Your task to perform on an android device: Clear the cart on bestbuy. Search for "jbl flip 4" on bestbuy, select the first entry, and add it to the cart. Image 0: 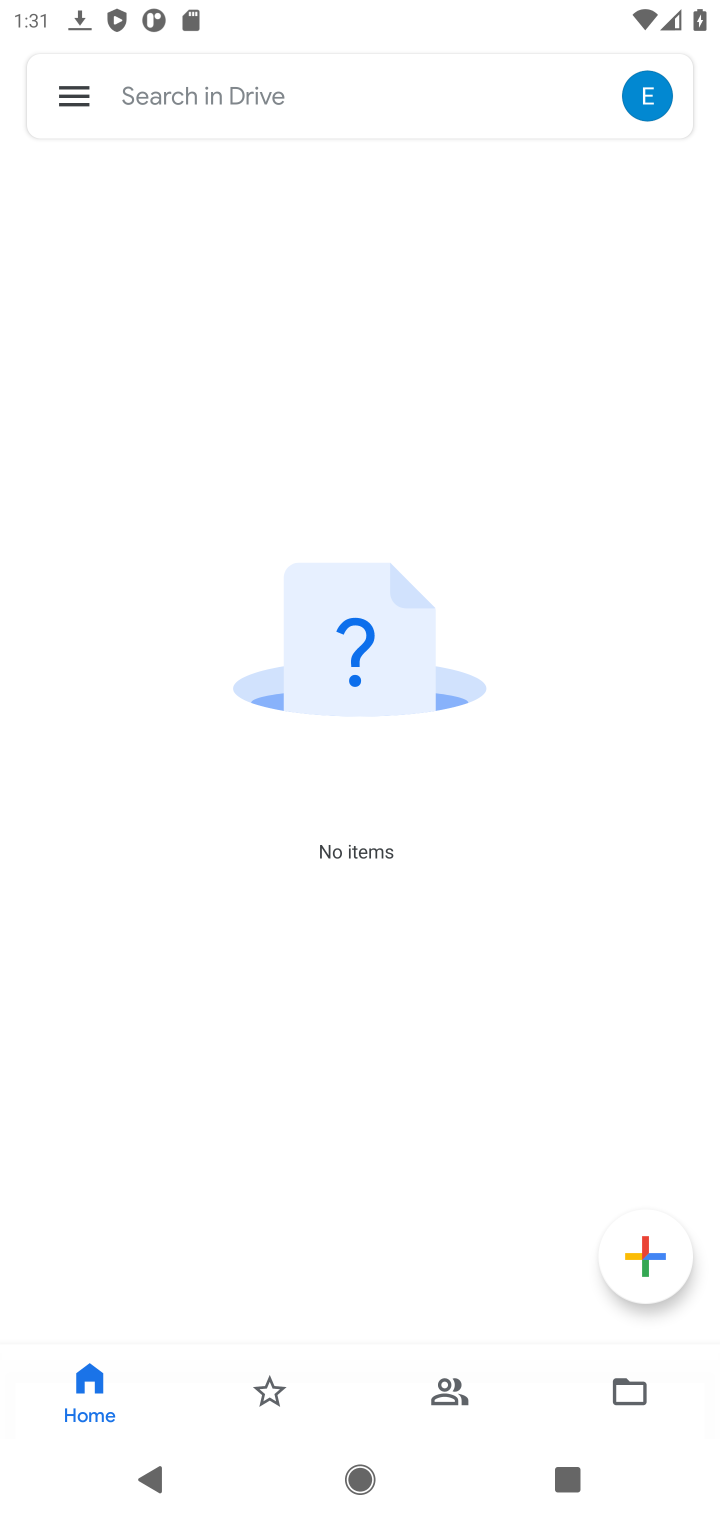
Step 0: press home button
Your task to perform on an android device: Clear the cart on bestbuy. Search for "jbl flip 4" on bestbuy, select the first entry, and add it to the cart. Image 1: 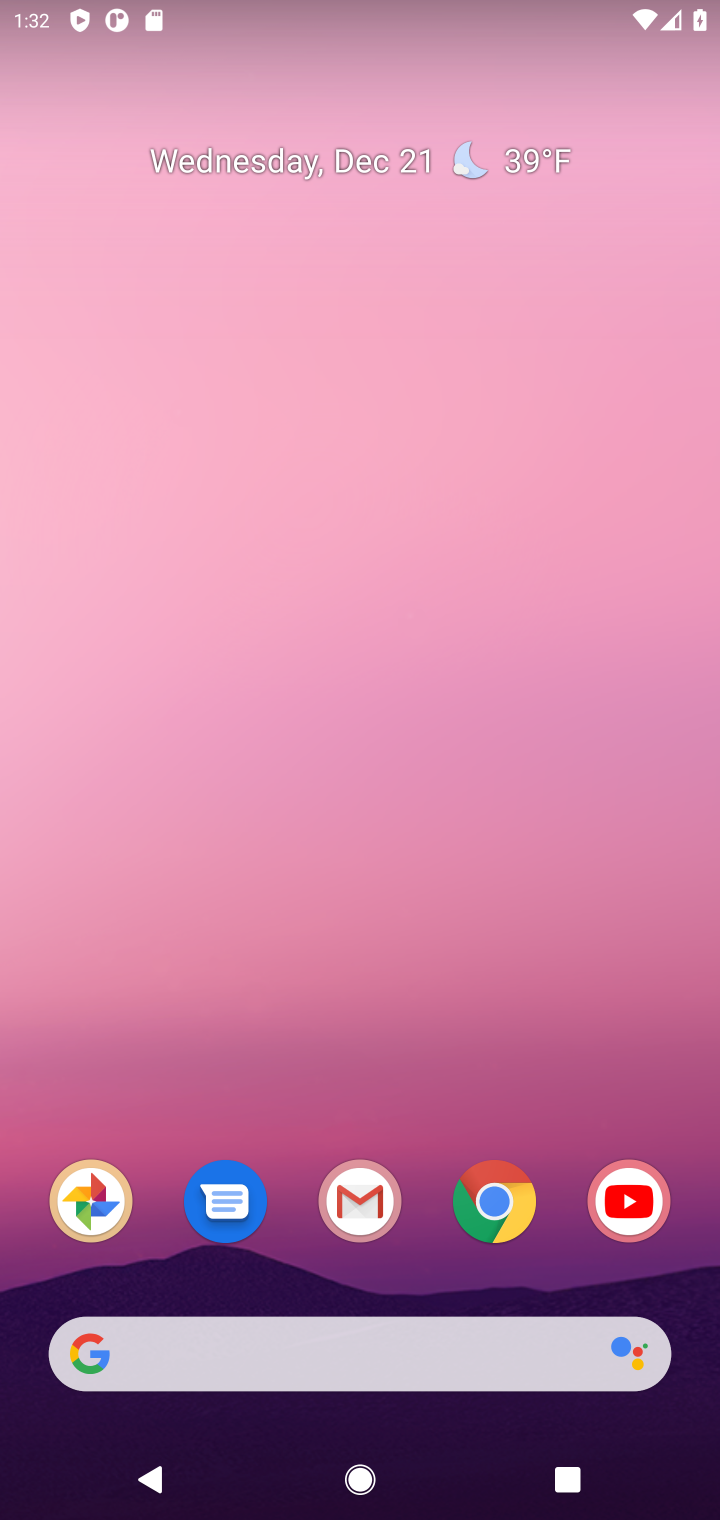
Step 1: click (502, 1209)
Your task to perform on an android device: Clear the cart on bestbuy. Search for "jbl flip 4" on bestbuy, select the first entry, and add it to the cart. Image 2: 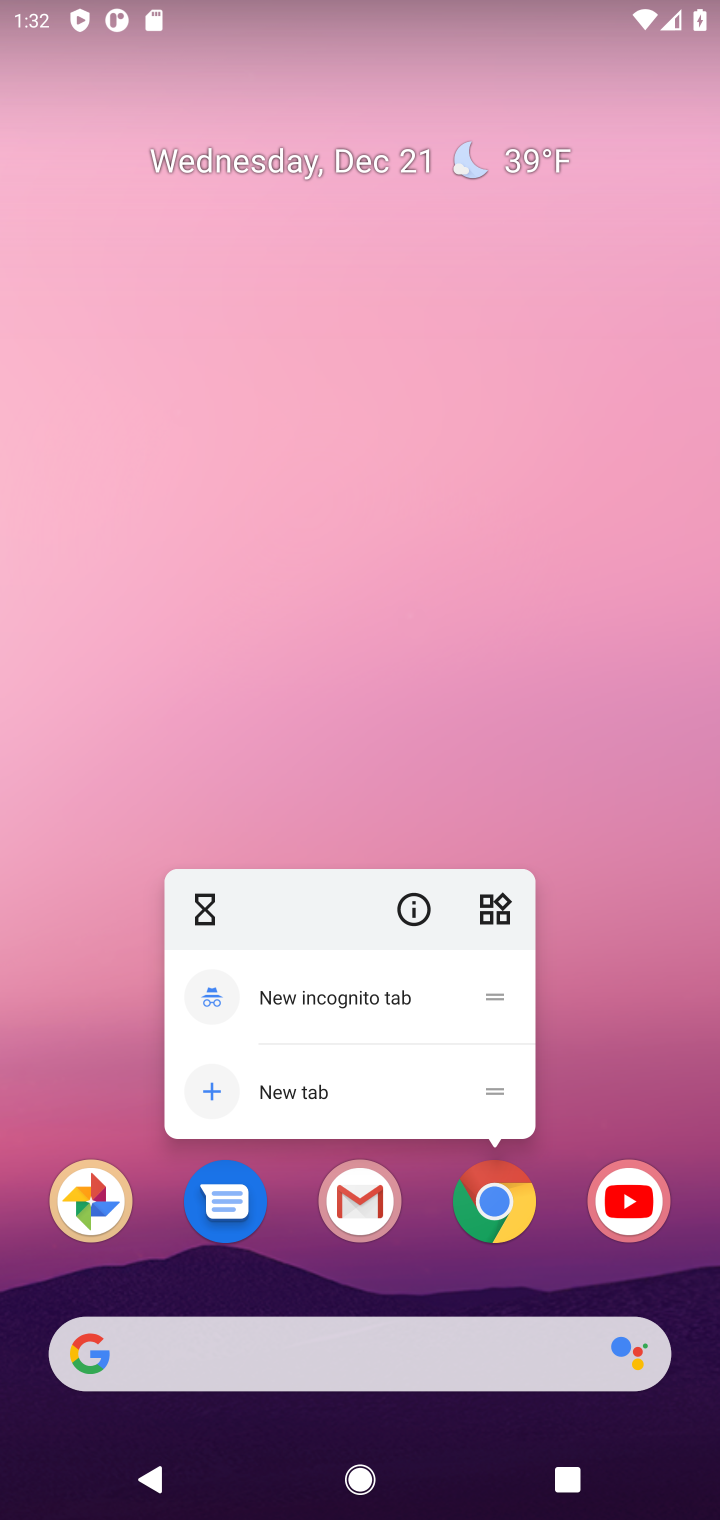
Step 2: click (502, 1209)
Your task to perform on an android device: Clear the cart on bestbuy. Search for "jbl flip 4" on bestbuy, select the first entry, and add it to the cart. Image 3: 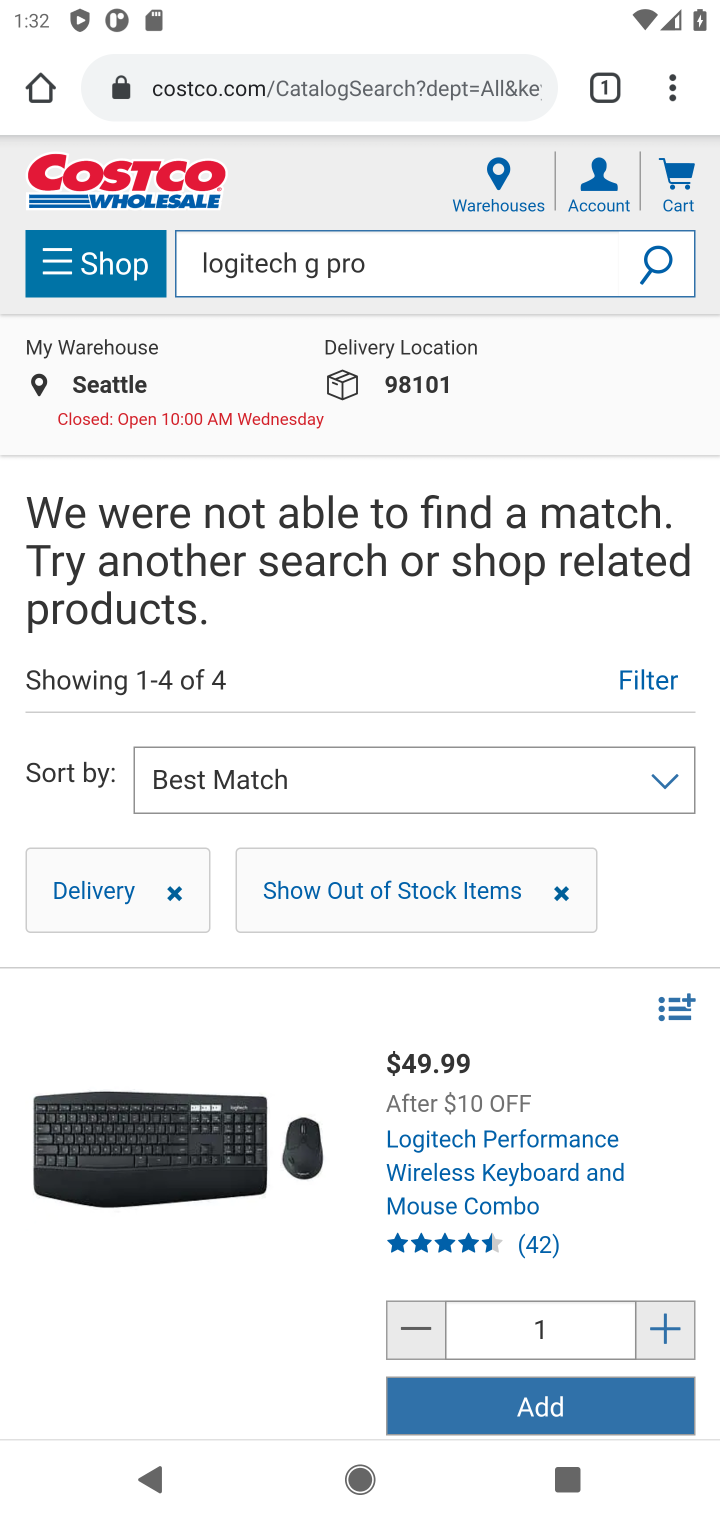
Step 3: click (284, 96)
Your task to perform on an android device: Clear the cart on bestbuy. Search for "jbl flip 4" on bestbuy, select the first entry, and add it to the cart. Image 4: 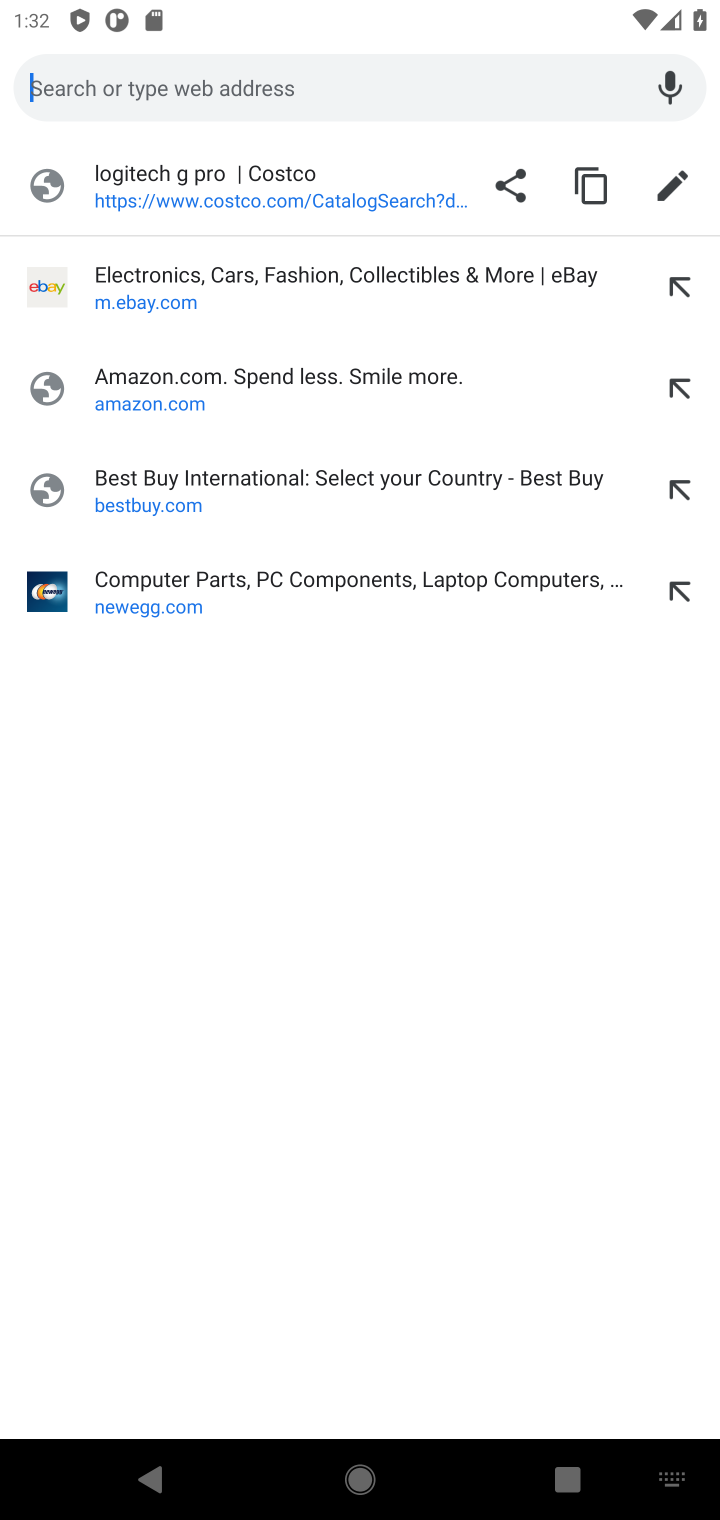
Step 4: click (128, 483)
Your task to perform on an android device: Clear the cart on bestbuy. Search for "jbl flip 4" on bestbuy, select the first entry, and add it to the cart. Image 5: 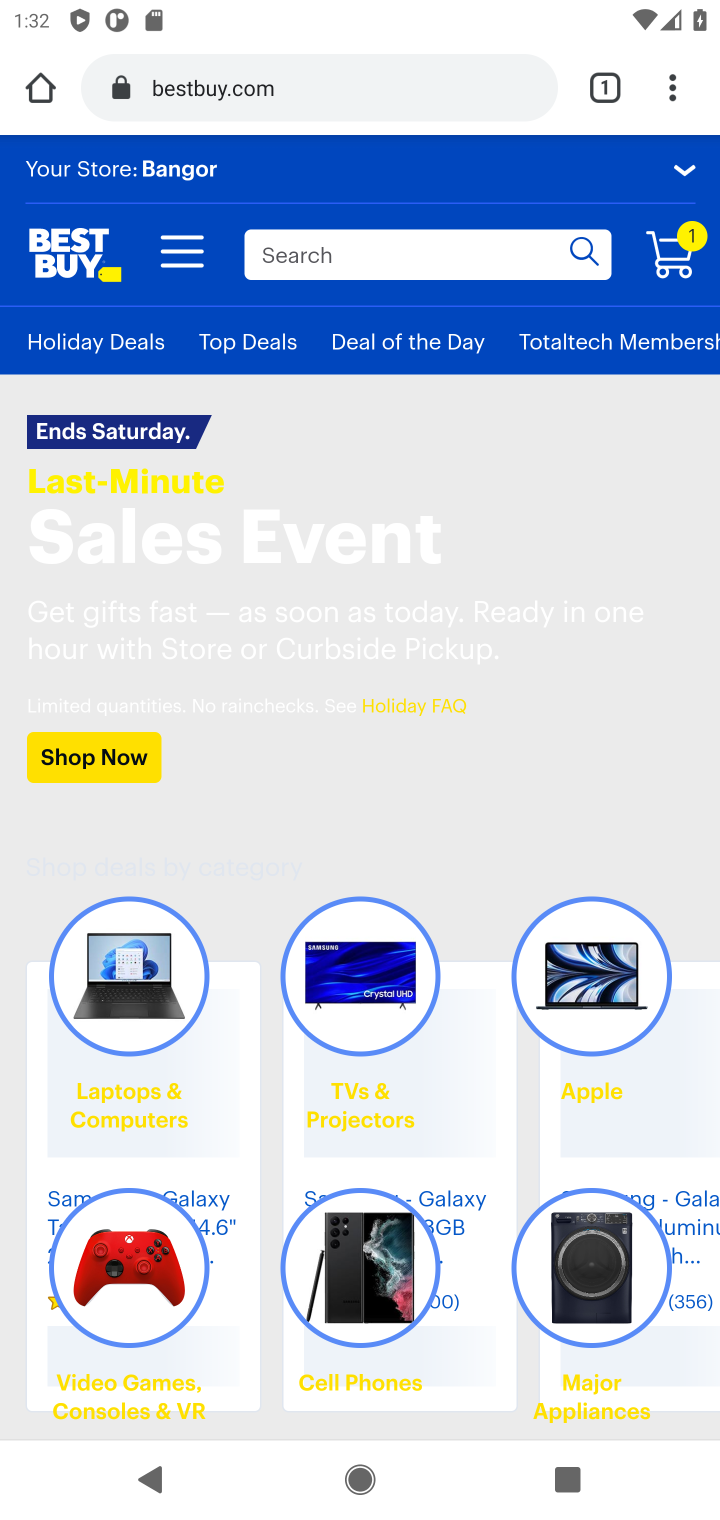
Step 5: click (683, 256)
Your task to perform on an android device: Clear the cart on bestbuy. Search for "jbl flip 4" on bestbuy, select the first entry, and add it to the cart. Image 6: 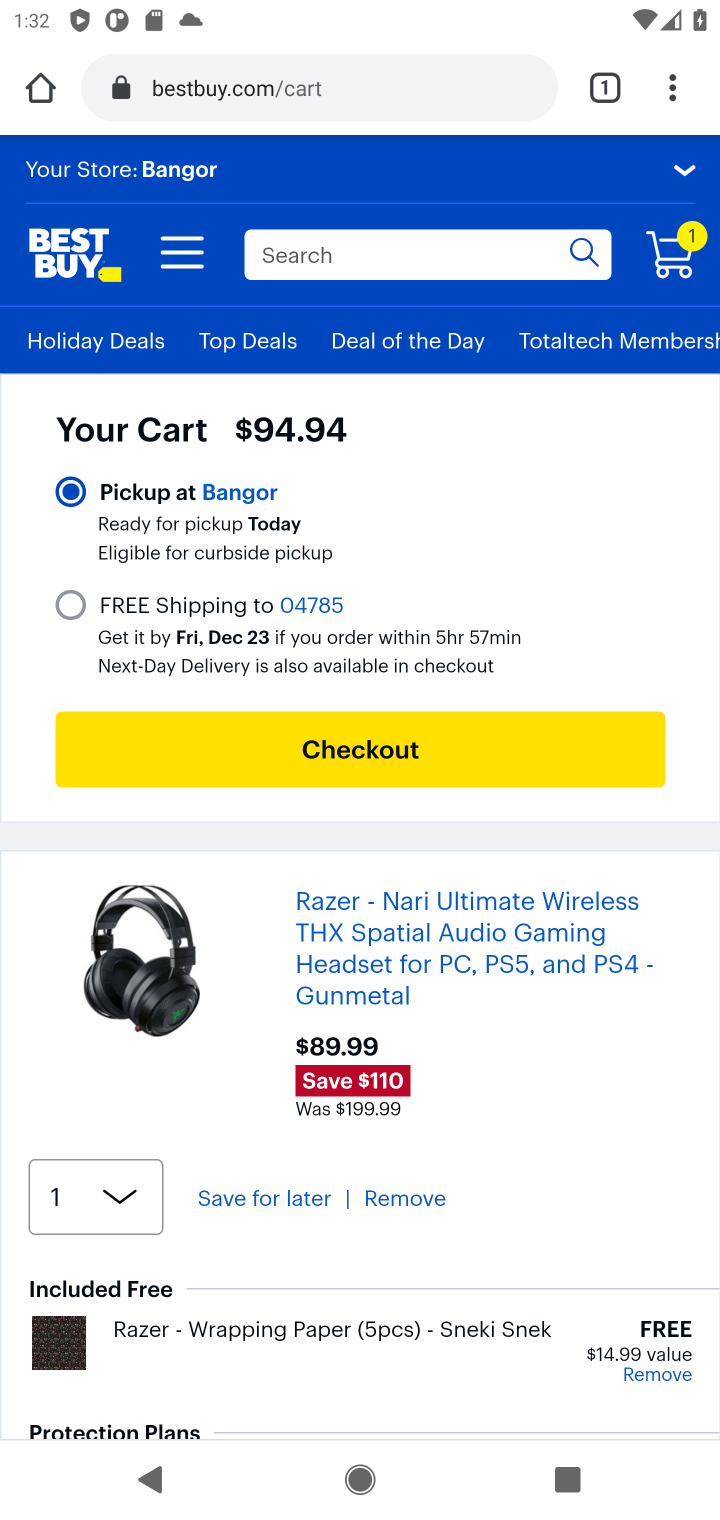
Step 6: click (394, 1205)
Your task to perform on an android device: Clear the cart on bestbuy. Search for "jbl flip 4" on bestbuy, select the first entry, and add it to the cart. Image 7: 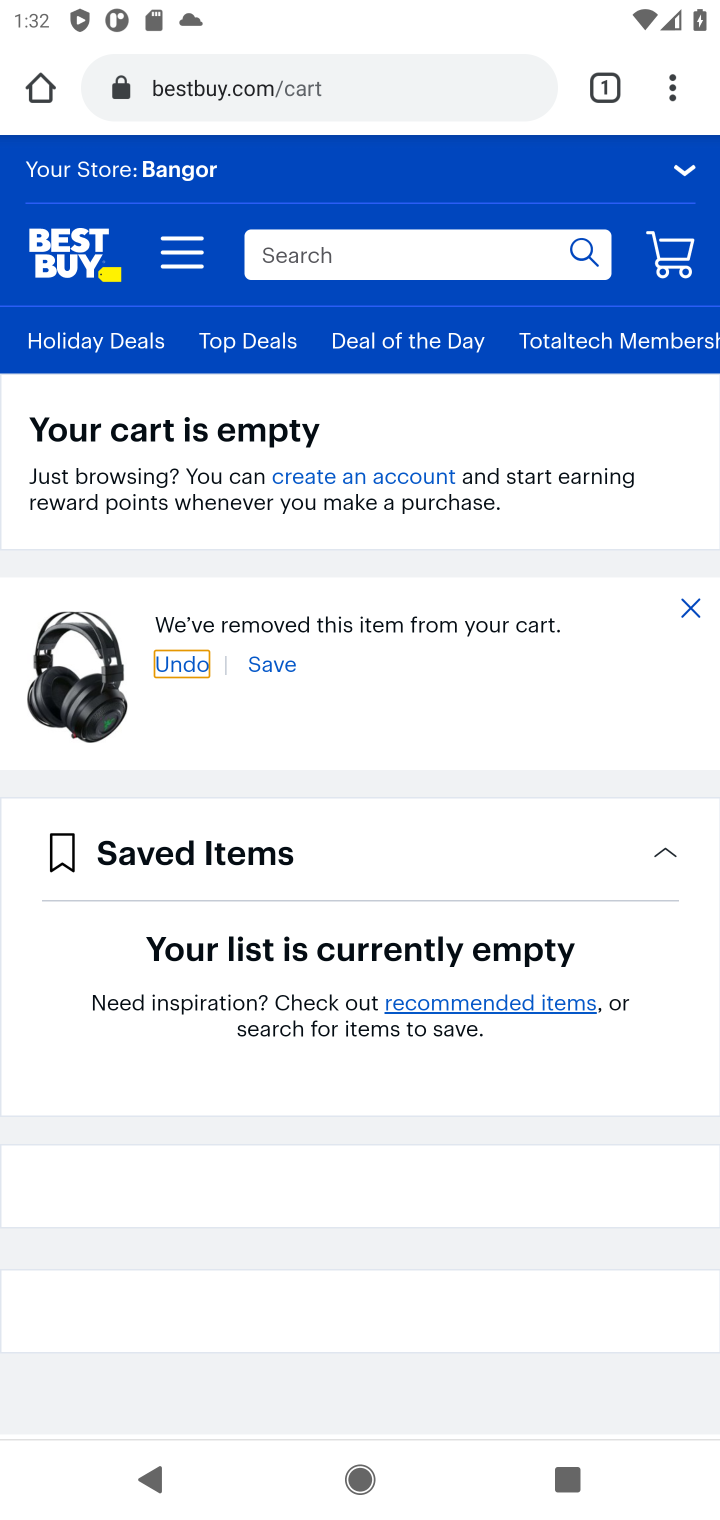
Step 7: click (368, 260)
Your task to perform on an android device: Clear the cart on bestbuy. Search for "jbl flip 4" on bestbuy, select the first entry, and add it to the cart. Image 8: 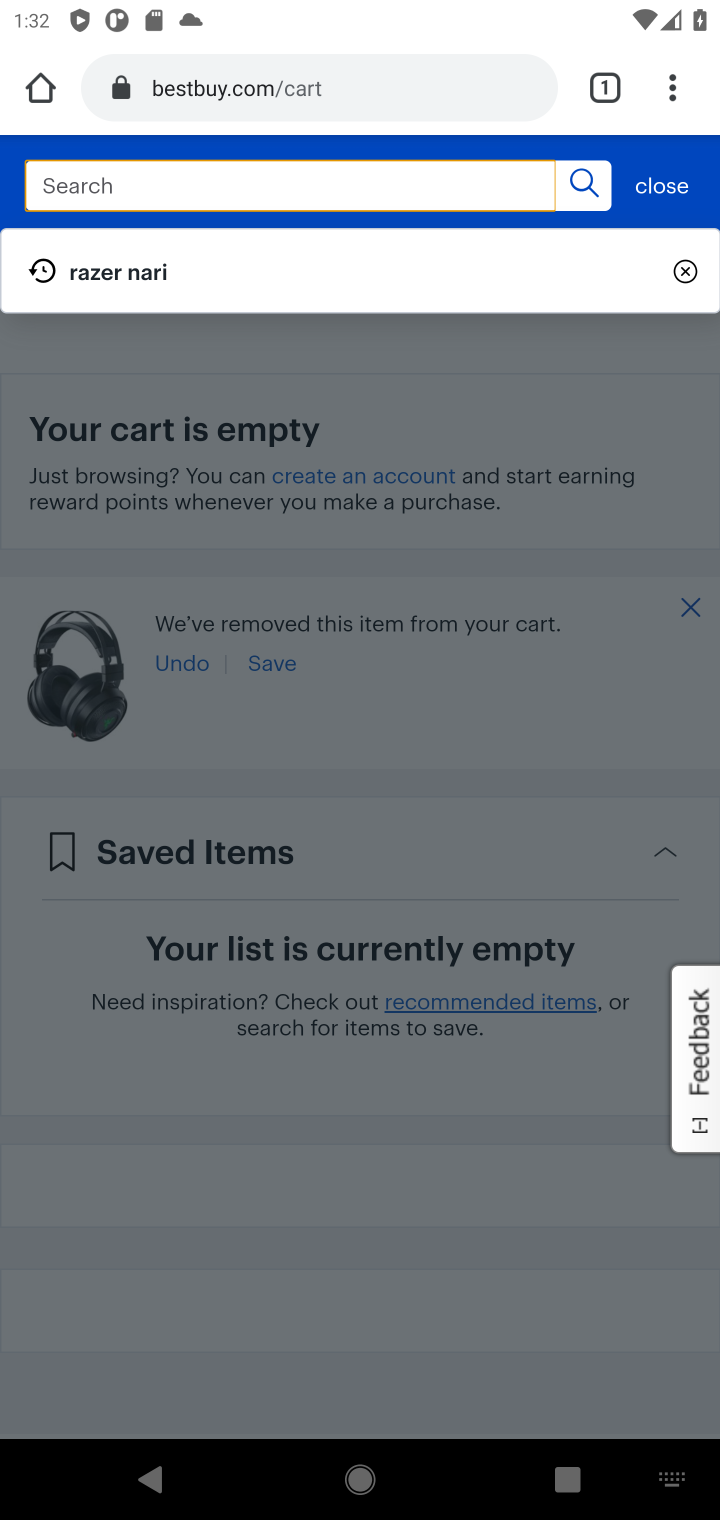
Step 8: type "jbl flip 4"
Your task to perform on an android device: Clear the cart on bestbuy. Search for "jbl flip 4" on bestbuy, select the first entry, and add it to the cart. Image 9: 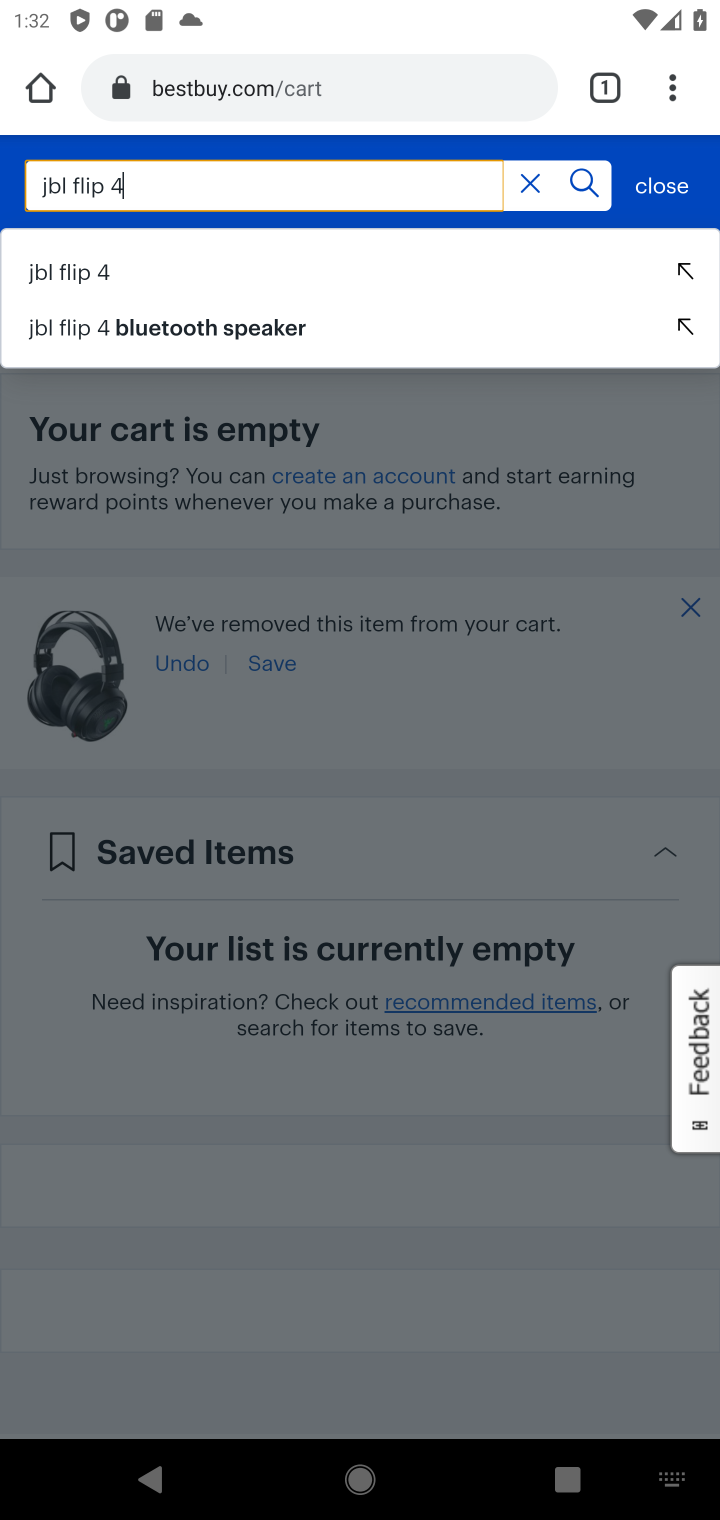
Step 9: click (82, 274)
Your task to perform on an android device: Clear the cart on bestbuy. Search for "jbl flip 4" on bestbuy, select the first entry, and add it to the cart. Image 10: 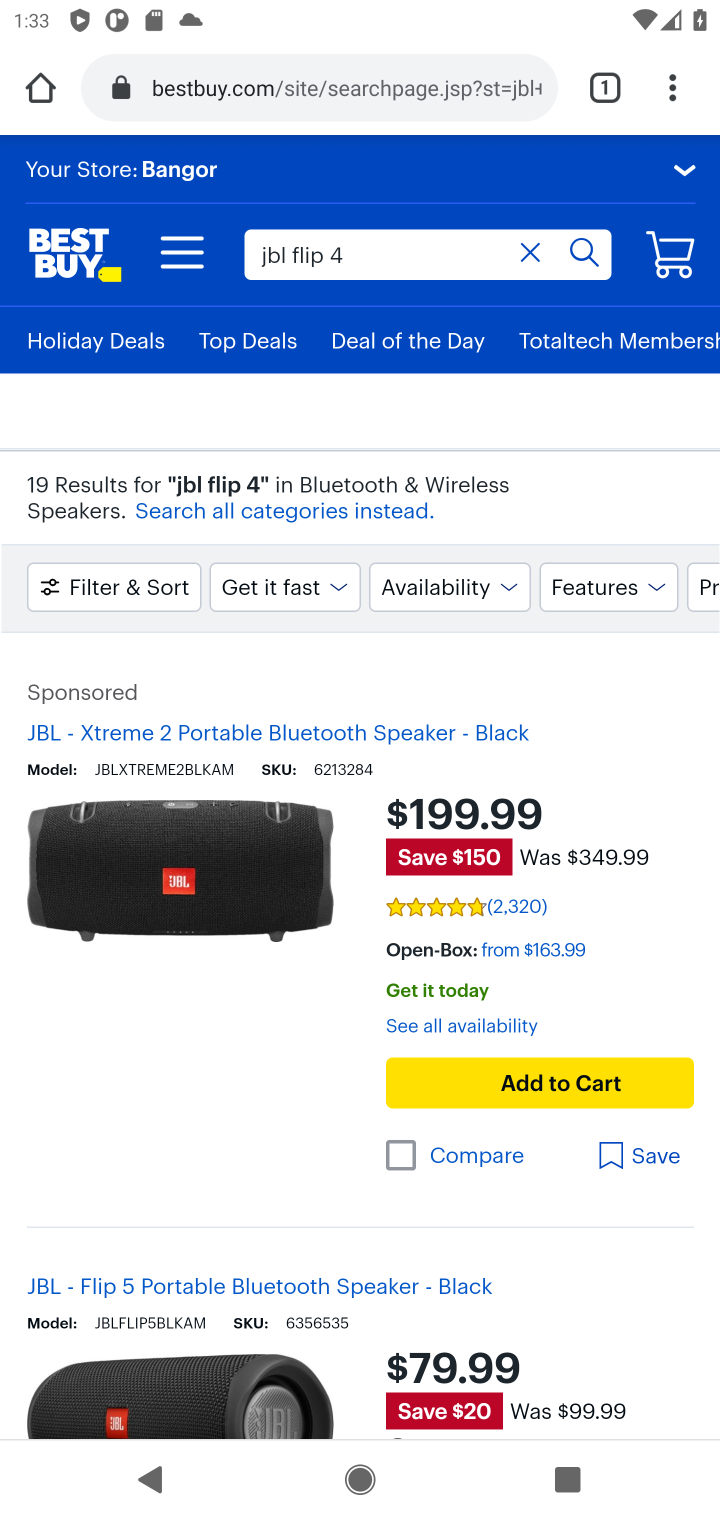
Step 10: task complete